Your task to perform on an android device: set the stopwatch Image 0: 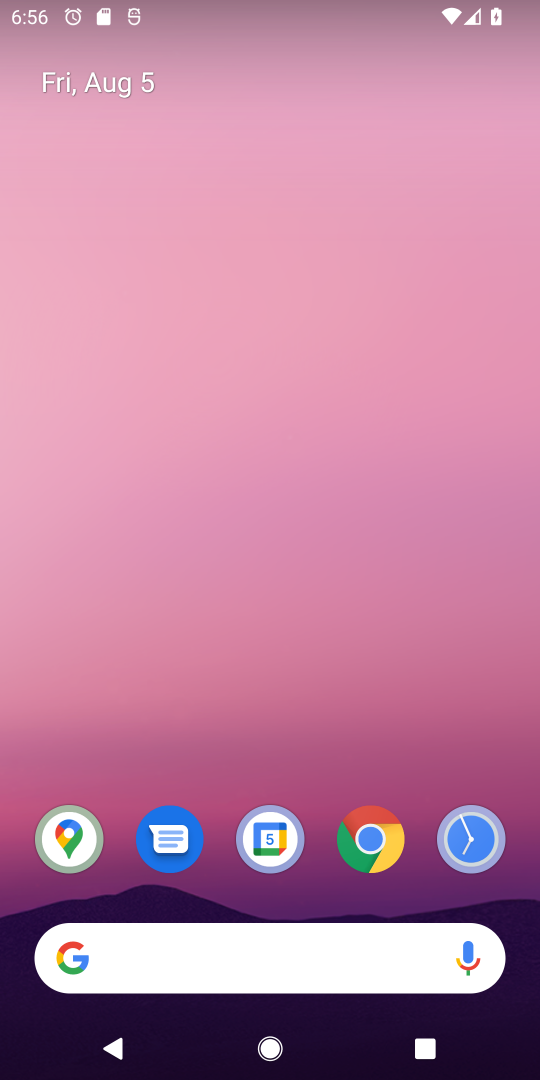
Step 0: click (441, 818)
Your task to perform on an android device: set the stopwatch Image 1: 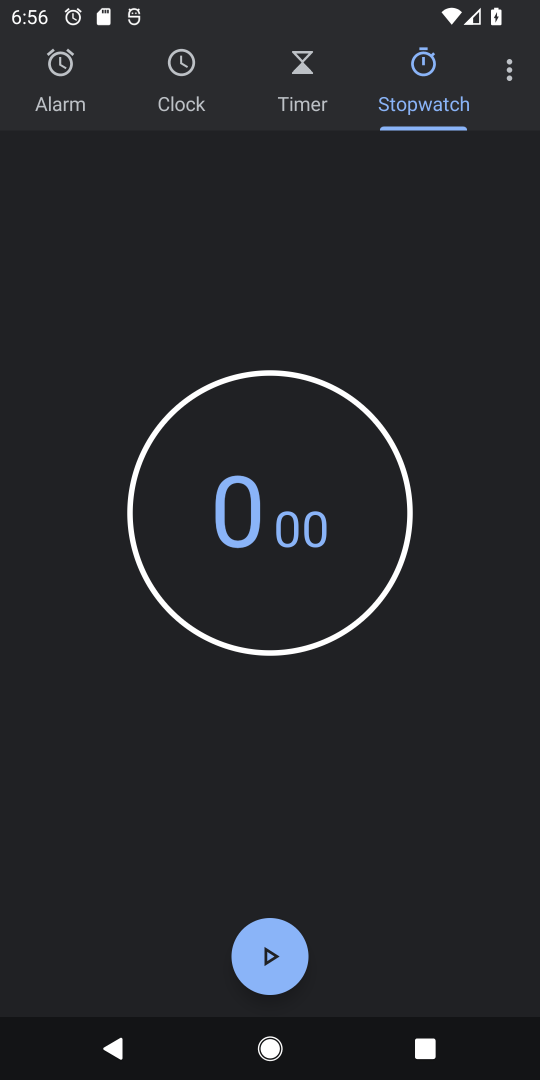
Step 1: task complete